Your task to perform on an android device: Open the calendar and show me this week's events? Image 0: 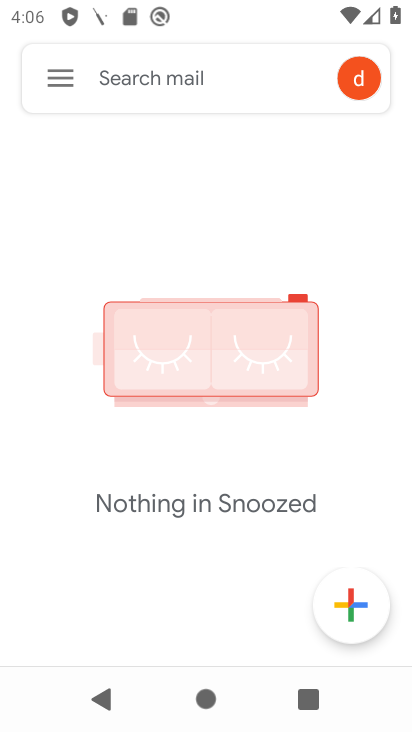
Step 0: press home button
Your task to perform on an android device: Open the calendar and show me this week's events? Image 1: 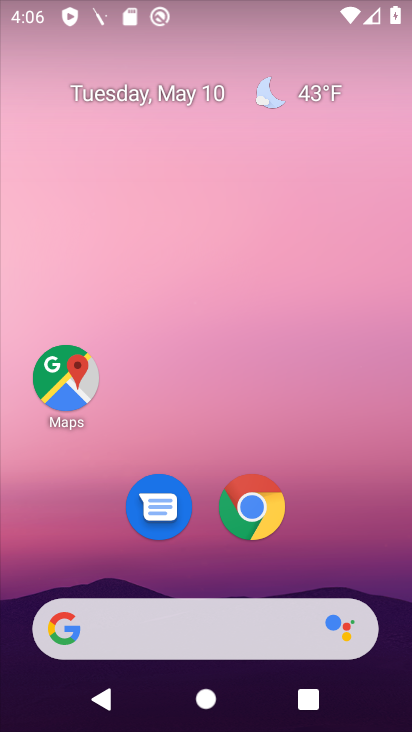
Step 1: drag from (199, 600) to (326, 189)
Your task to perform on an android device: Open the calendar and show me this week's events? Image 2: 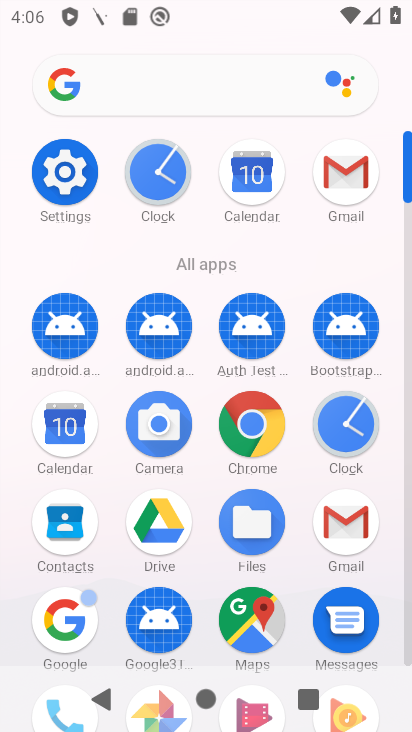
Step 2: click (51, 441)
Your task to perform on an android device: Open the calendar and show me this week's events? Image 3: 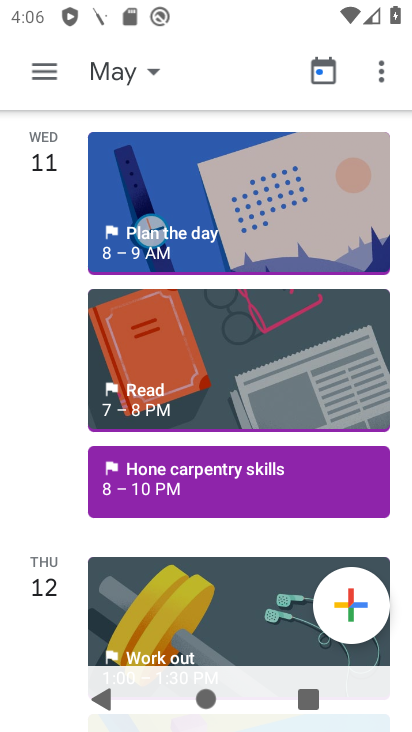
Step 3: click (36, 79)
Your task to perform on an android device: Open the calendar and show me this week's events? Image 4: 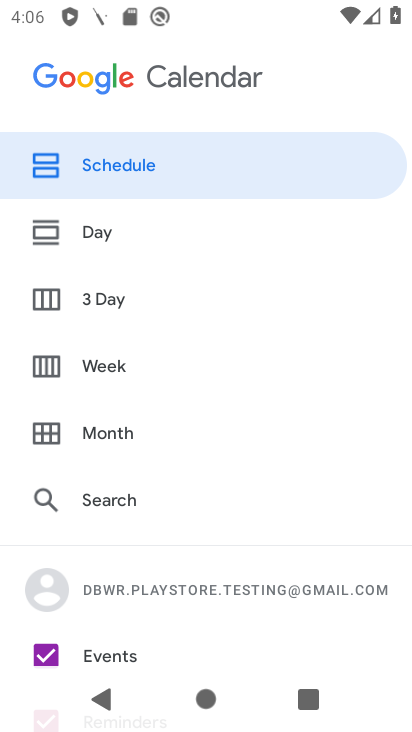
Step 4: click (96, 383)
Your task to perform on an android device: Open the calendar and show me this week's events? Image 5: 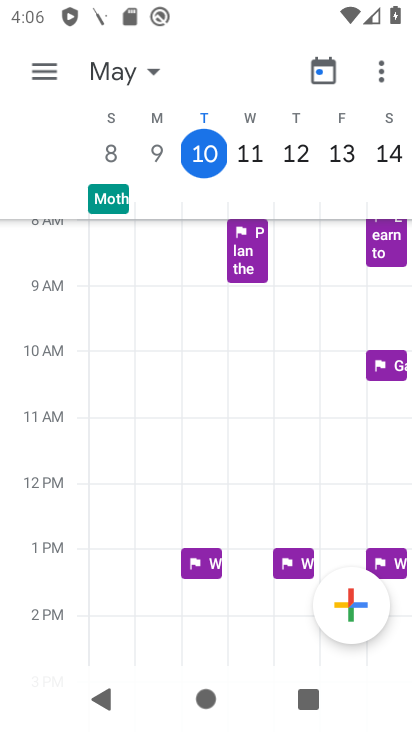
Step 5: task complete